Your task to perform on an android device: Go to wifi settings Image 0: 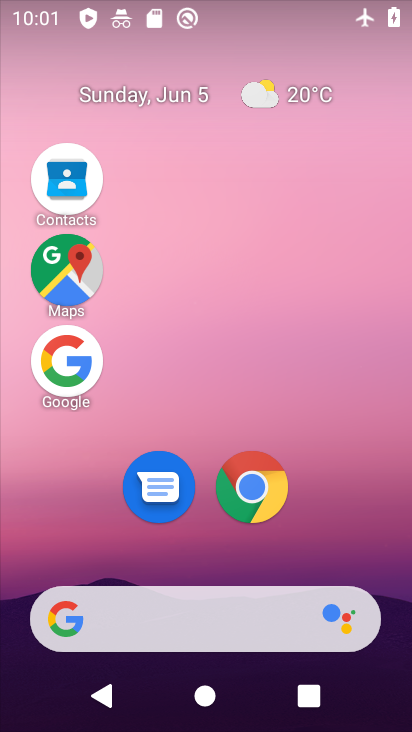
Step 0: drag from (232, 611) to (263, 49)
Your task to perform on an android device: Go to wifi settings Image 1: 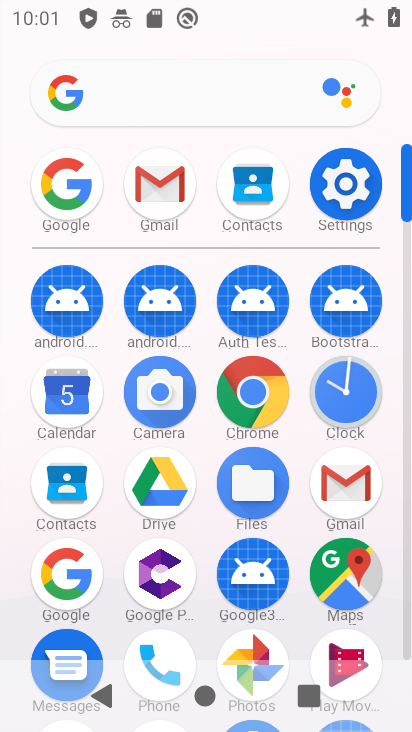
Step 1: click (360, 196)
Your task to perform on an android device: Go to wifi settings Image 2: 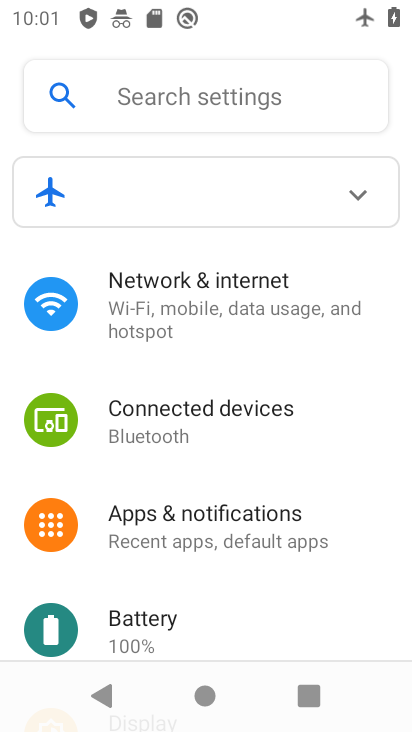
Step 2: click (211, 340)
Your task to perform on an android device: Go to wifi settings Image 3: 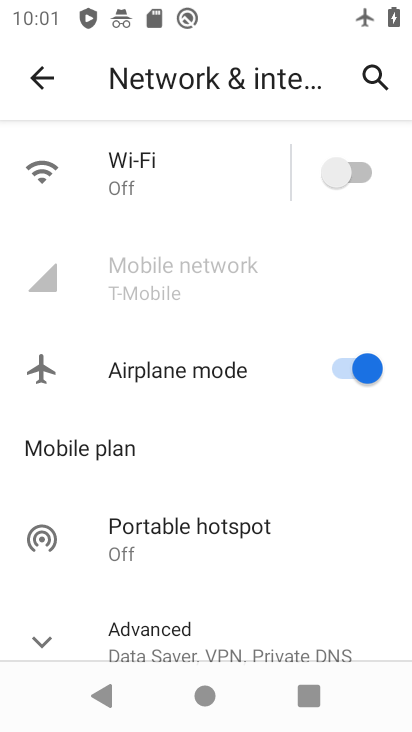
Step 3: click (152, 188)
Your task to perform on an android device: Go to wifi settings Image 4: 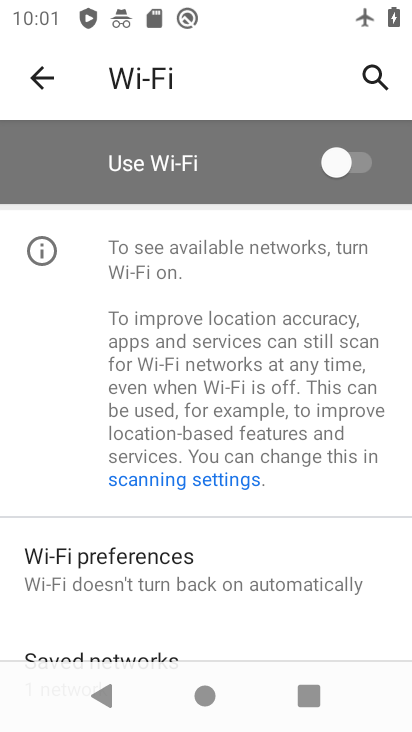
Step 4: task complete